Your task to perform on an android device: change your default location settings in chrome Image 0: 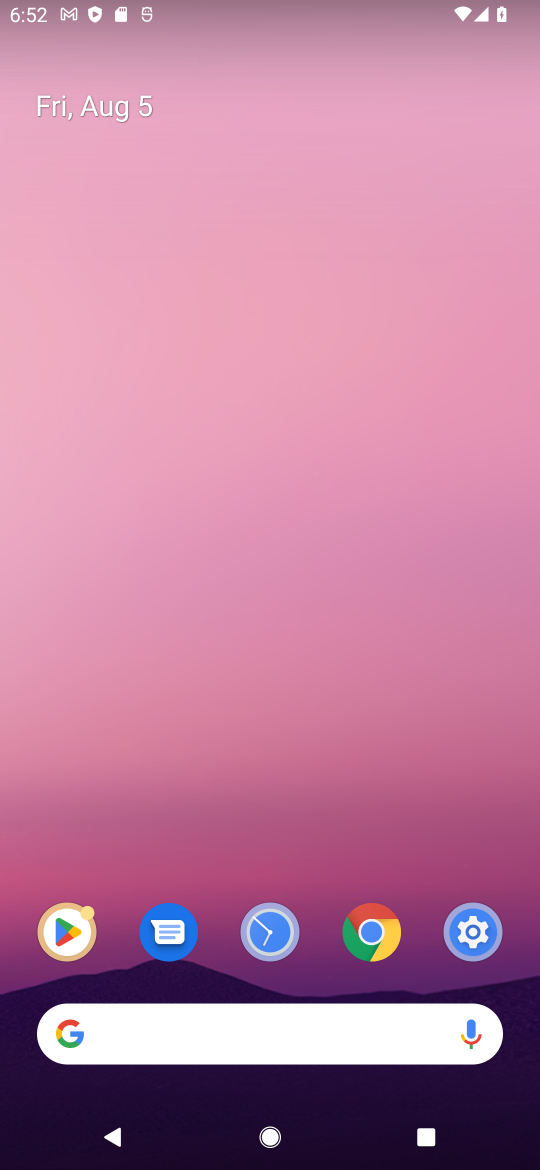
Step 0: drag from (344, 716) to (362, 176)
Your task to perform on an android device: change your default location settings in chrome Image 1: 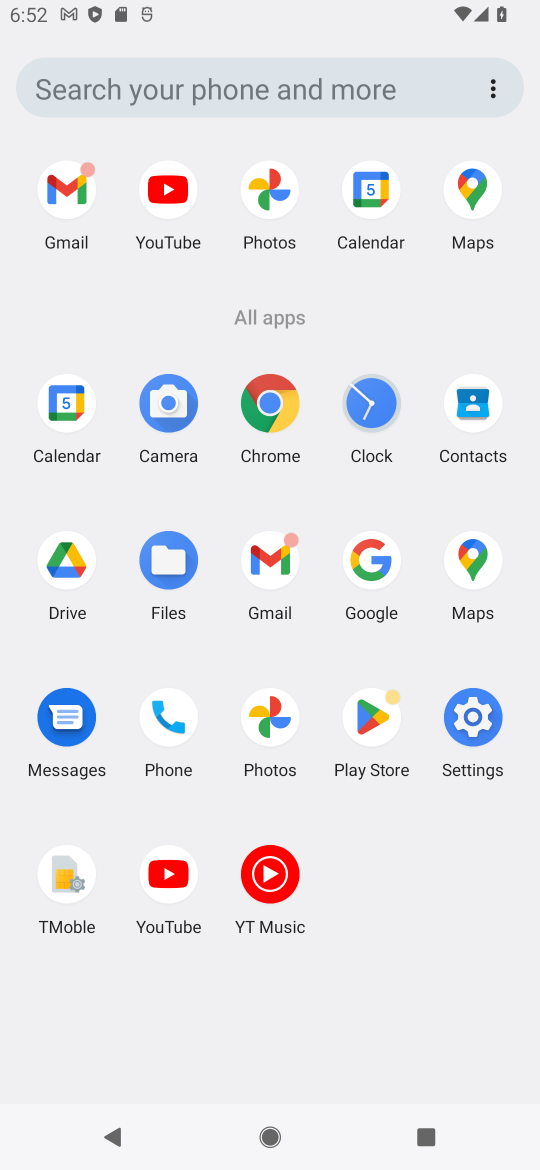
Step 1: click (263, 403)
Your task to perform on an android device: change your default location settings in chrome Image 2: 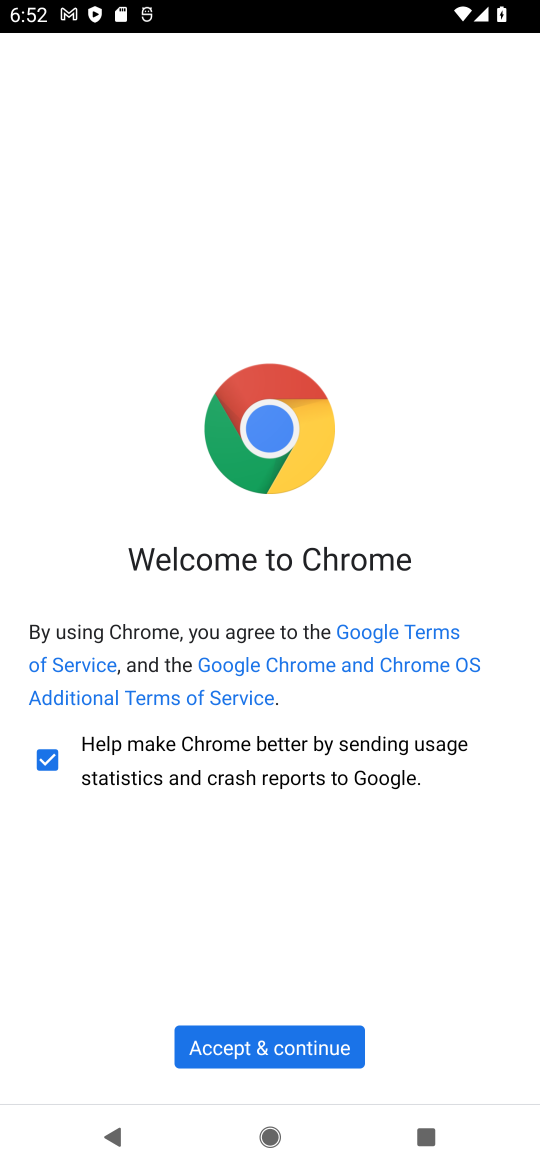
Step 2: click (282, 1023)
Your task to perform on an android device: change your default location settings in chrome Image 3: 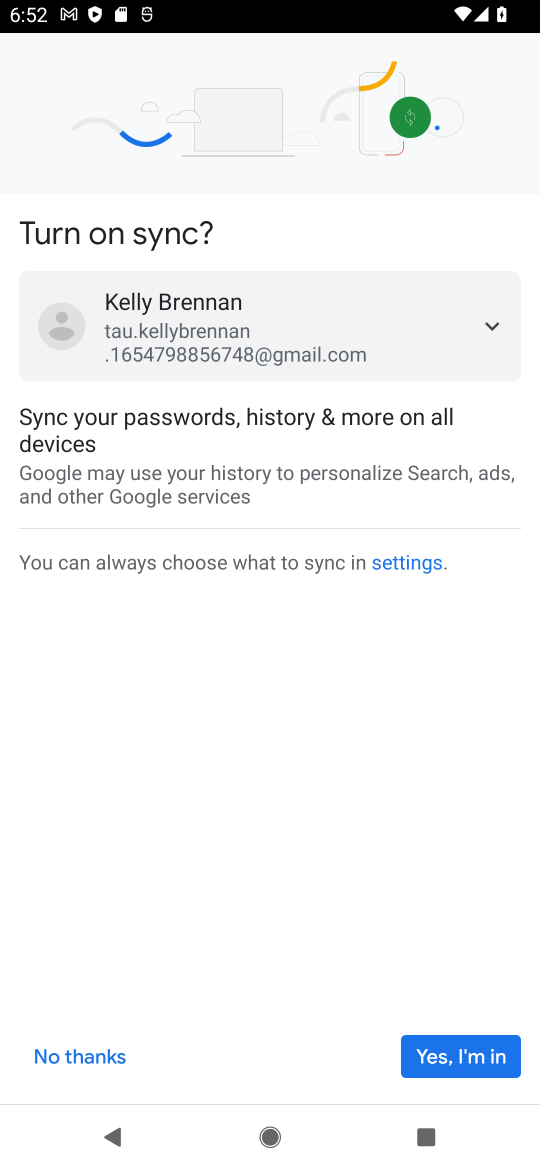
Step 3: click (467, 1049)
Your task to perform on an android device: change your default location settings in chrome Image 4: 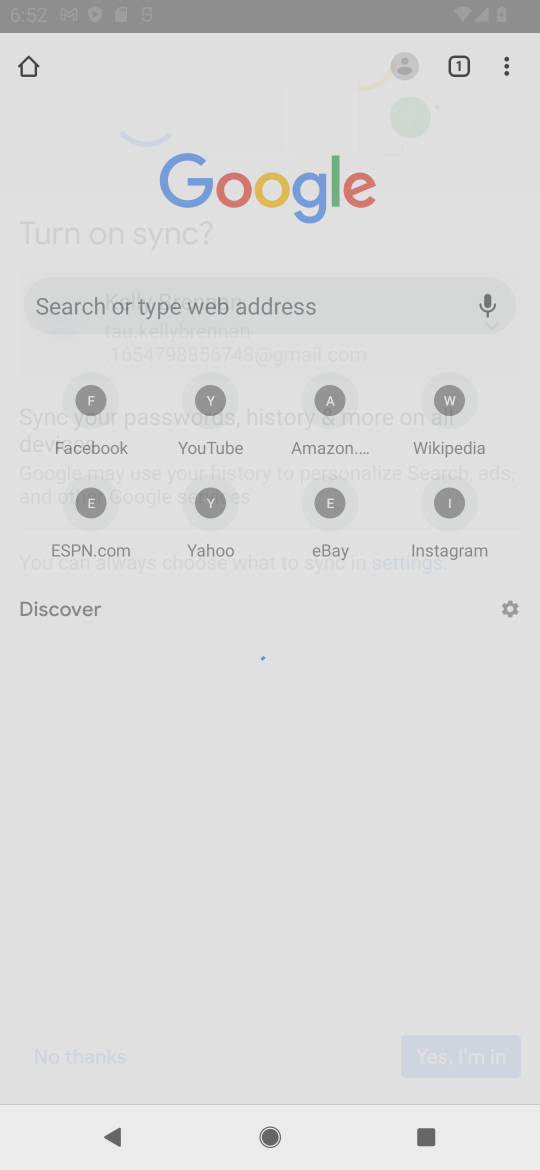
Step 4: click (465, 1048)
Your task to perform on an android device: change your default location settings in chrome Image 5: 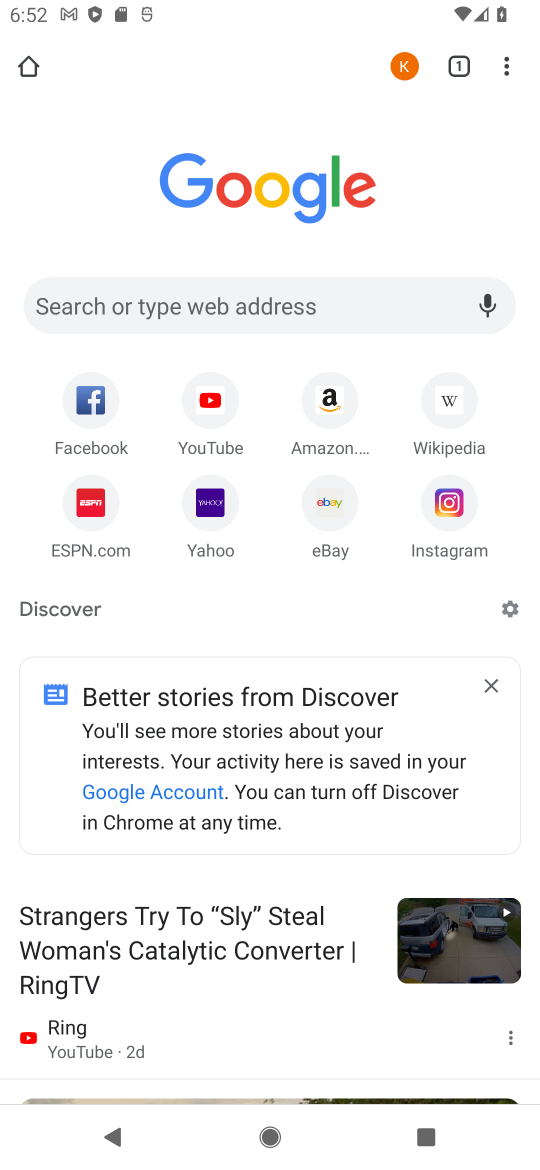
Step 5: drag from (510, 66) to (360, 541)
Your task to perform on an android device: change your default location settings in chrome Image 6: 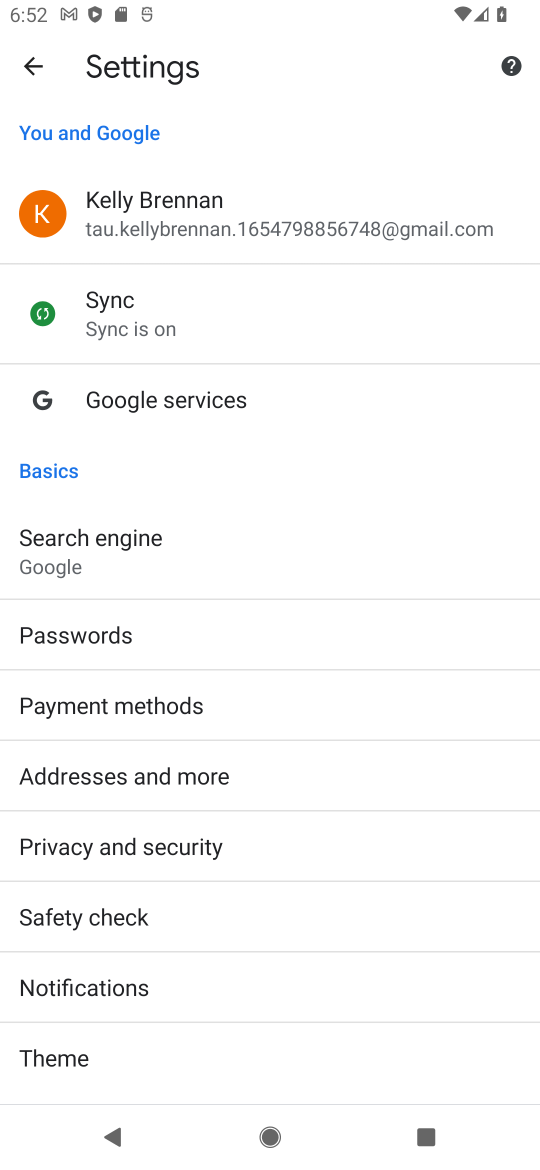
Step 6: drag from (287, 939) to (313, 495)
Your task to perform on an android device: change your default location settings in chrome Image 7: 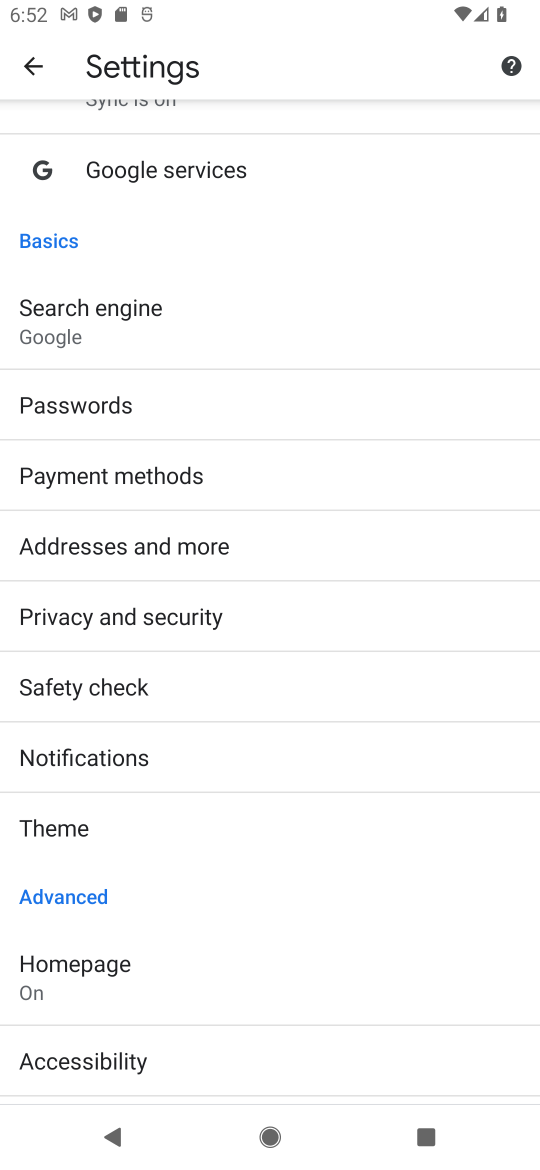
Step 7: drag from (294, 842) to (335, 413)
Your task to perform on an android device: change your default location settings in chrome Image 8: 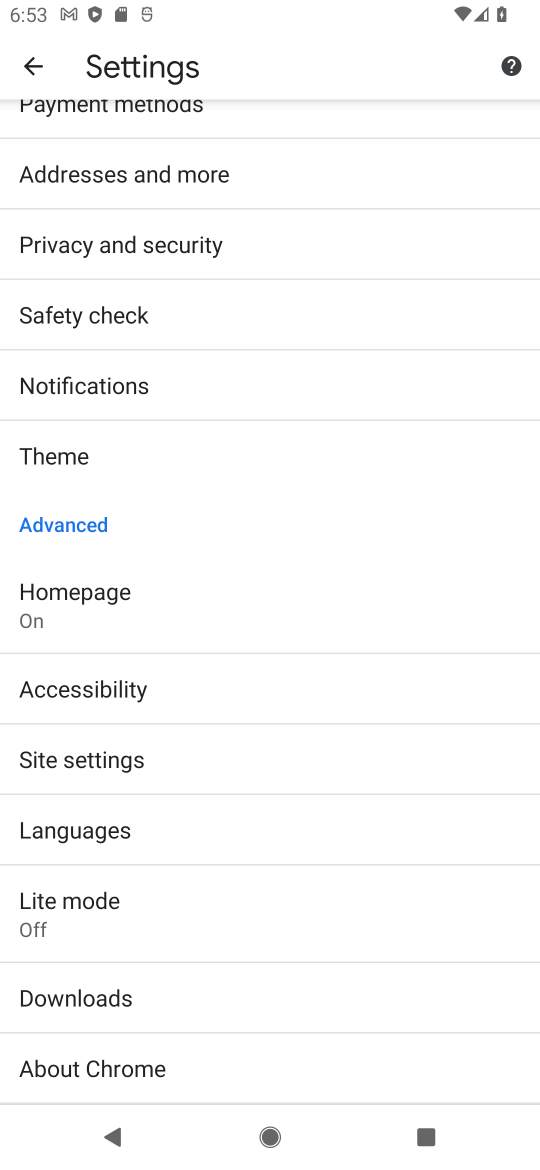
Step 8: click (89, 767)
Your task to perform on an android device: change your default location settings in chrome Image 9: 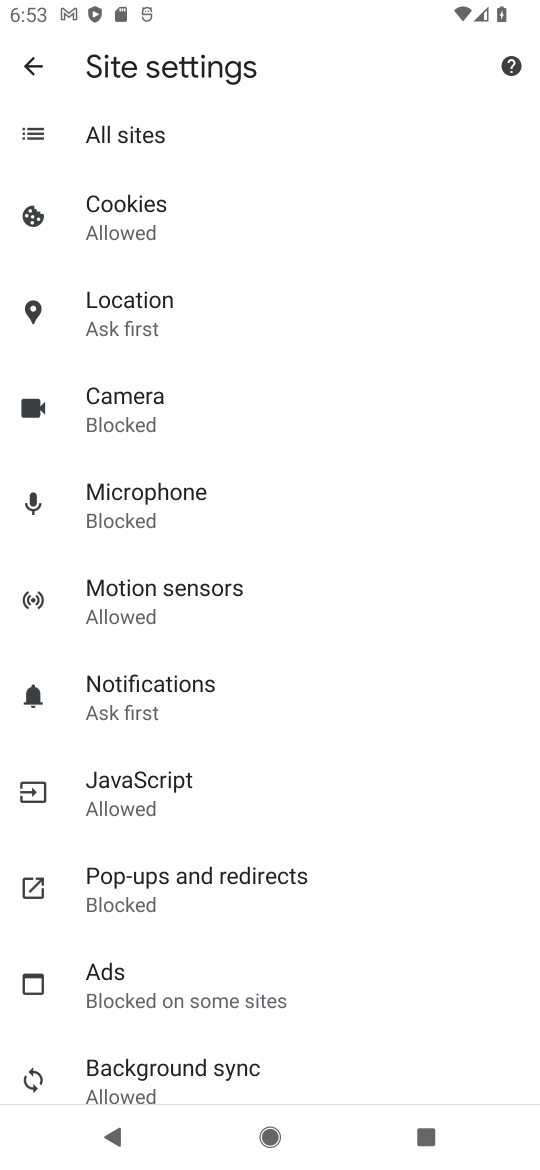
Step 9: click (170, 317)
Your task to perform on an android device: change your default location settings in chrome Image 10: 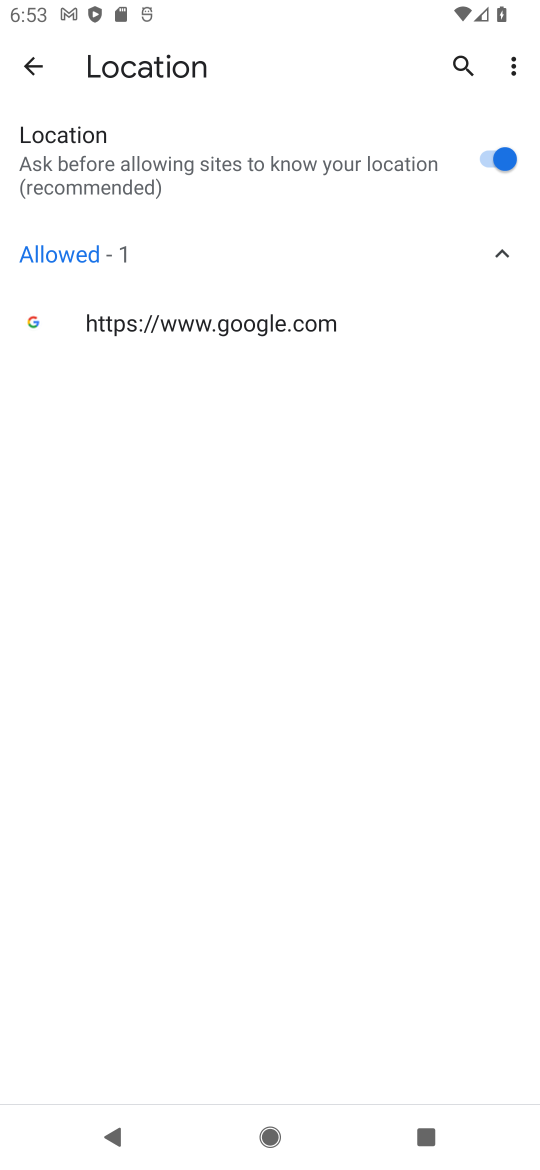
Step 10: click (511, 168)
Your task to perform on an android device: change your default location settings in chrome Image 11: 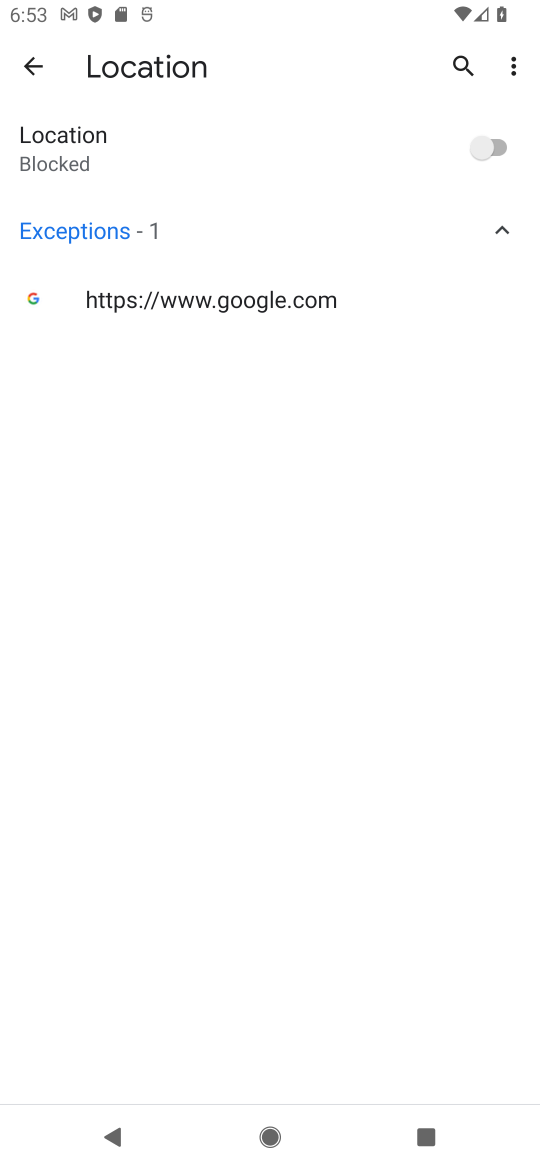
Step 11: task complete